Your task to perform on an android device: Set an alarmfor 5pm Image 0: 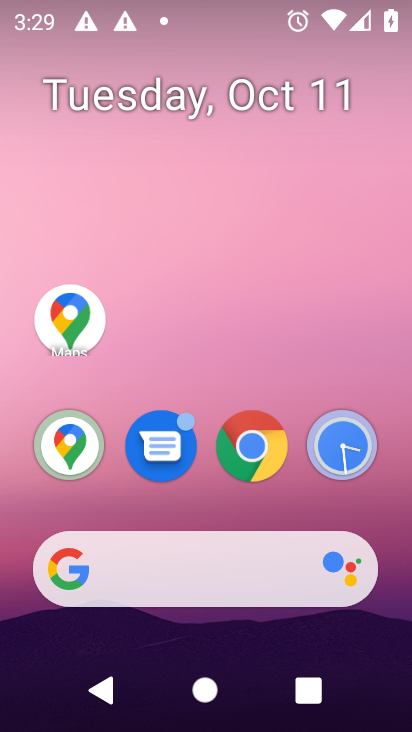
Step 0: click (335, 450)
Your task to perform on an android device: Set an alarmfor 5pm Image 1: 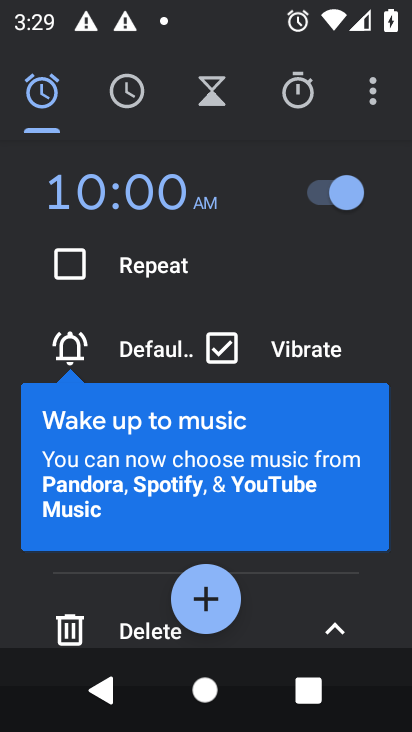
Step 1: click (208, 599)
Your task to perform on an android device: Set an alarmfor 5pm Image 2: 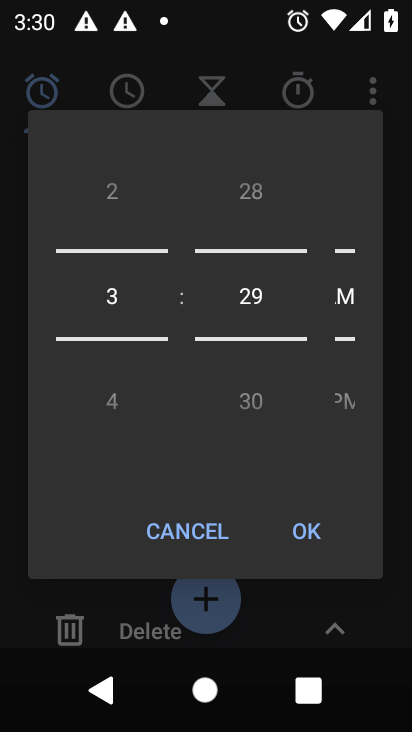
Step 2: drag from (107, 405) to (110, 119)
Your task to perform on an android device: Set an alarmfor 5pm Image 3: 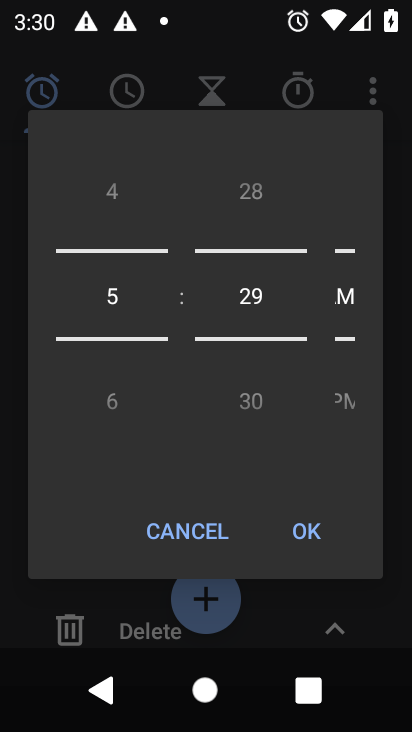
Step 3: drag from (247, 297) to (272, 689)
Your task to perform on an android device: Set an alarmfor 5pm Image 4: 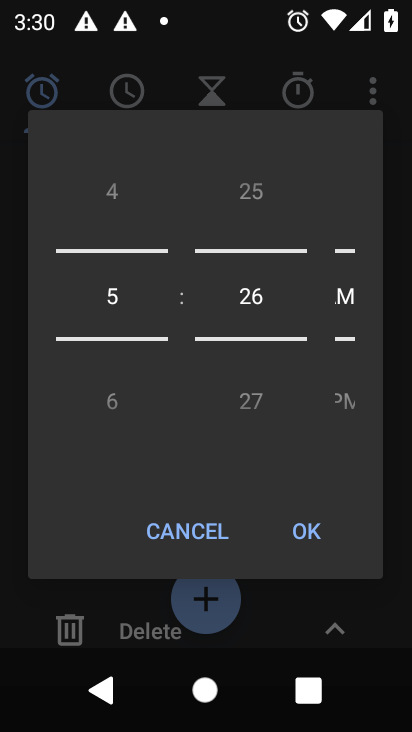
Step 4: drag from (243, 283) to (276, 687)
Your task to perform on an android device: Set an alarmfor 5pm Image 5: 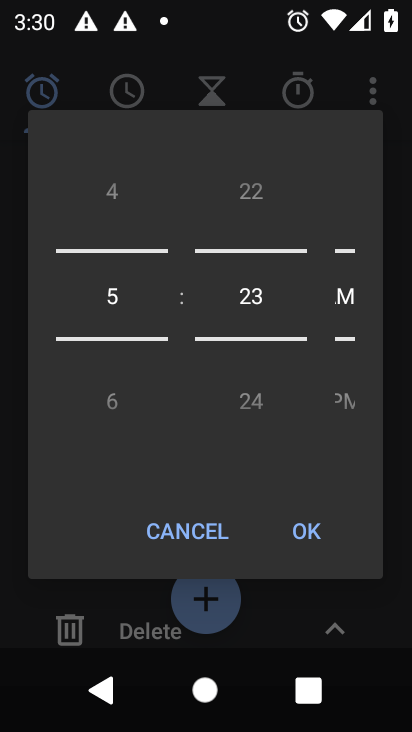
Step 5: drag from (252, 283) to (272, 593)
Your task to perform on an android device: Set an alarmfor 5pm Image 6: 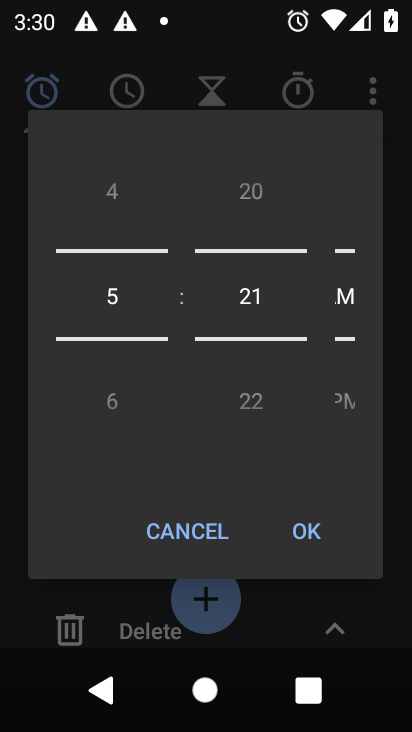
Step 6: drag from (253, 304) to (265, 513)
Your task to perform on an android device: Set an alarmfor 5pm Image 7: 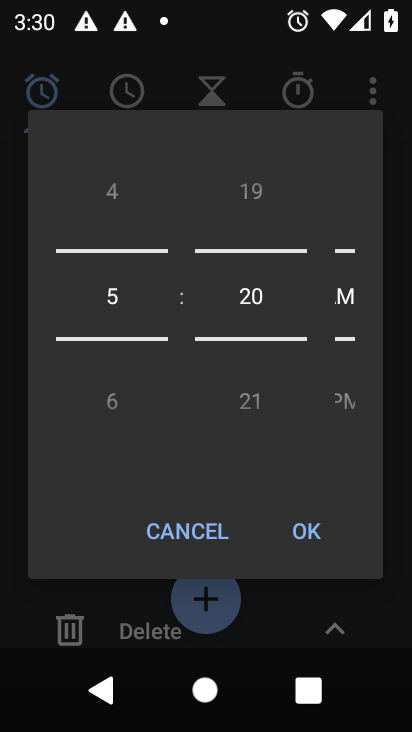
Step 7: drag from (250, 308) to (267, 494)
Your task to perform on an android device: Set an alarmfor 5pm Image 8: 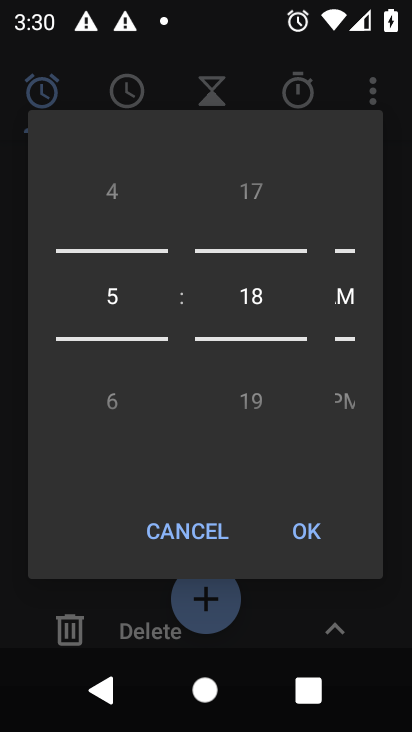
Step 8: drag from (249, 290) to (257, 530)
Your task to perform on an android device: Set an alarmfor 5pm Image 9: 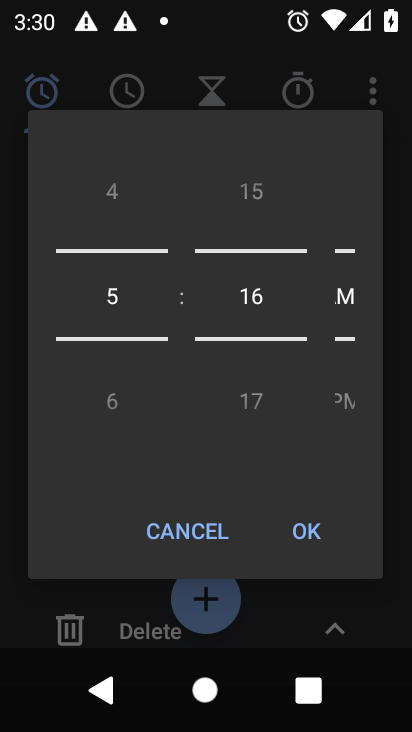
Step 9: drag from (243, 305) to (263, 524)
Your task to perform on an android device: Set an alarmfor 5pm Image 10: 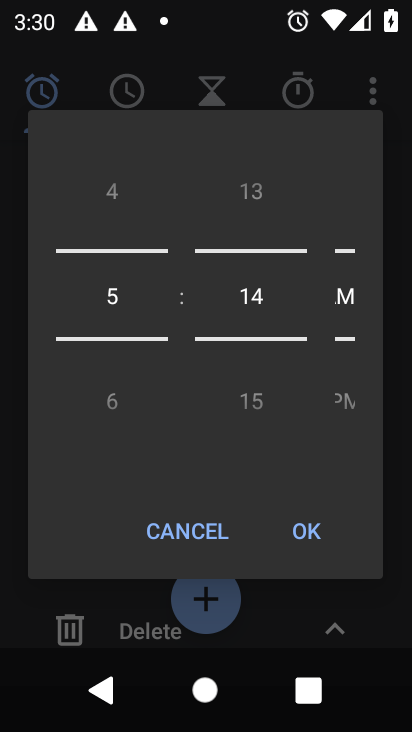
Step 10: drag from (247, 276) to (283, 475)
Your task to perform on an android device: Set an alarmfor 5pm Image 11: 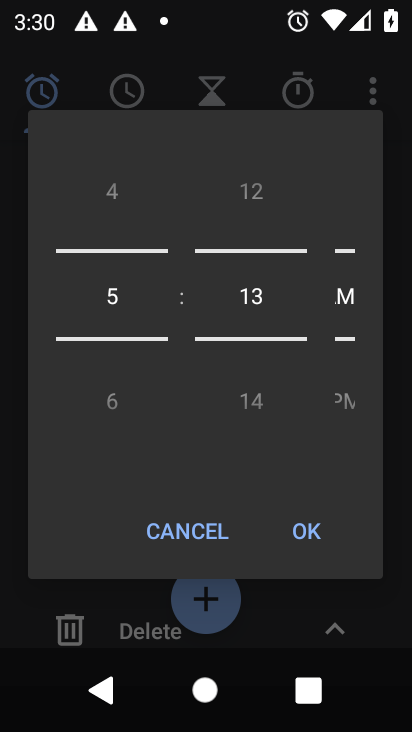
Step 11: drag from (254, 288) to (275, 418)
Your task to perform on an android device: Set an alarmfor 5pm Image 12: 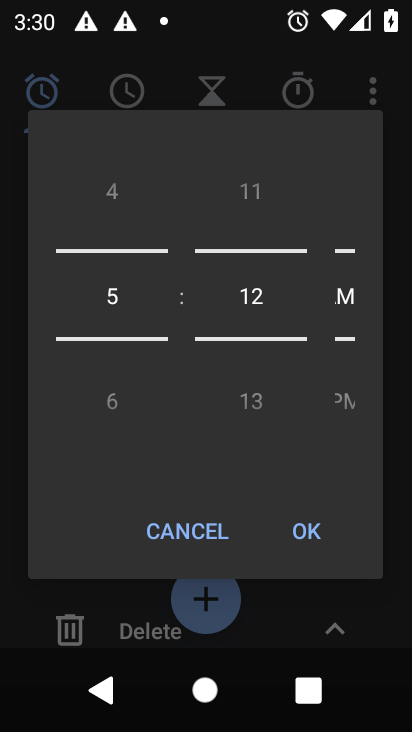
Step 12: drag from (252, 287) to (252, 376)
Your task to perform on an android device: Set an alarmfor 5pm Image 13: 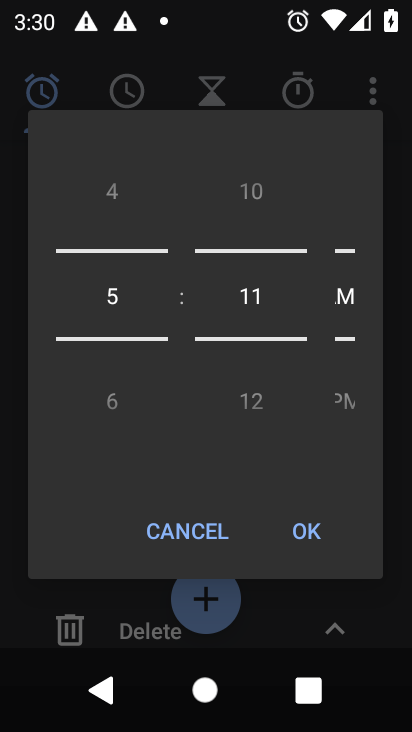
Step 13: drag from (247, 299) to (242, 421)
Your task to perform on an android device: Set an alarmfor 5pm Image 14: 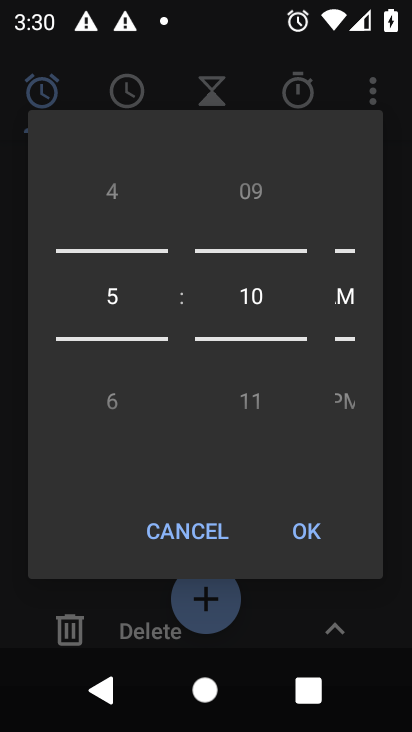
Step 14: drag from (248, 299) to (264, 425)
Your task to perform on an android device: Set an alarmfor 5pm Image 15: 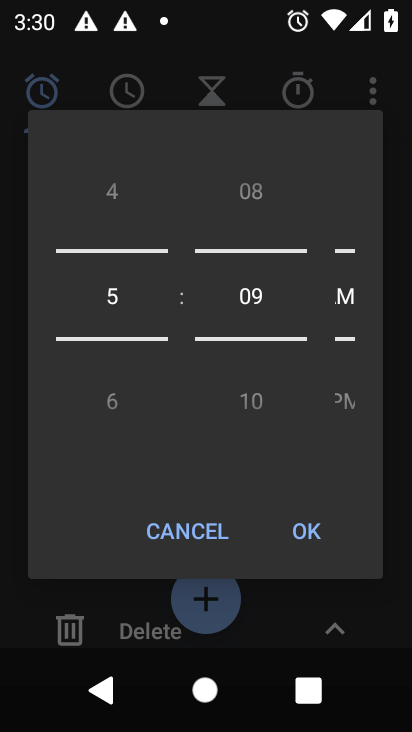
Step 15: drag from (249, 297) to (257, 398)
Your task to perform on an android device: Set an alarmfor 5pm Image 16: 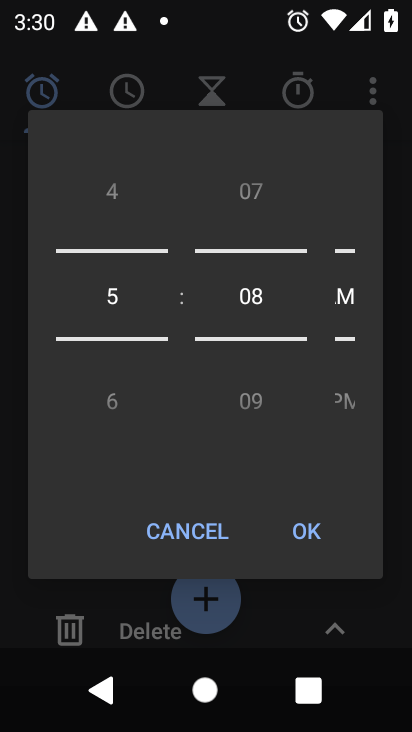
Step 16: drag from (246, 299) to (258, 408)
Your task to perform on an android device: Set an alarmfor 5pm Image 17: 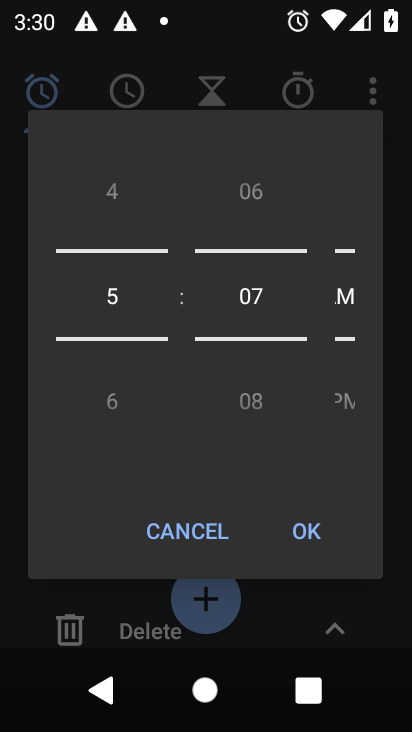
Step 17: drag from (243, 292) to (243, 404)
Your task to perform on an android device: Set an alarmfor 5pm Image 18: 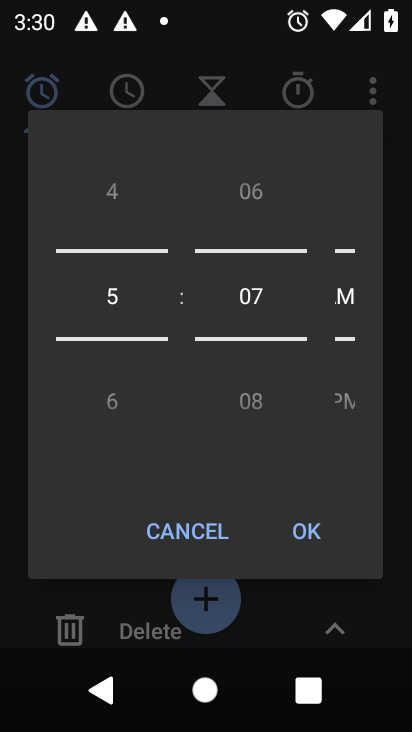
Step 18: drag from (248, 298) to (258, 419)
Your task to perform on an android device: Set an alarmfor 5pm Image 19: 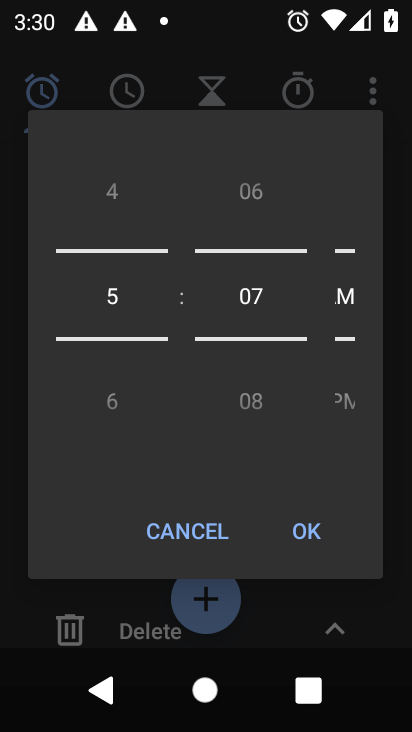
Step 19: drag from (246, 297) to (253, 438)
Your task to perform on an android device: Set an alarmfor 5pm Image 20: 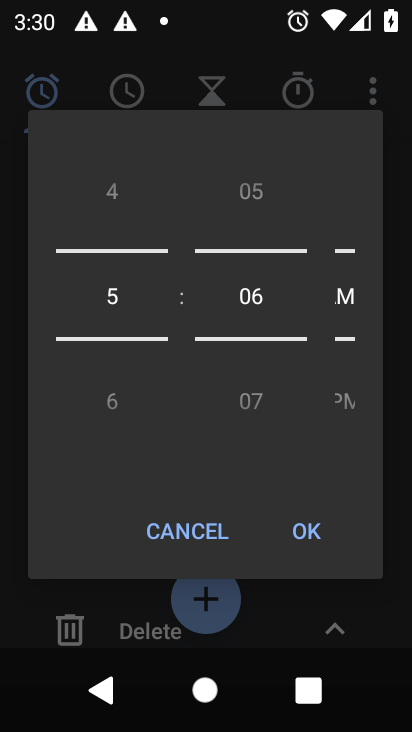
Step 20: drag from (251, 302) to (270, 402)
Your task to perform on an android device: Set an alarmfor 5pm Image 21: 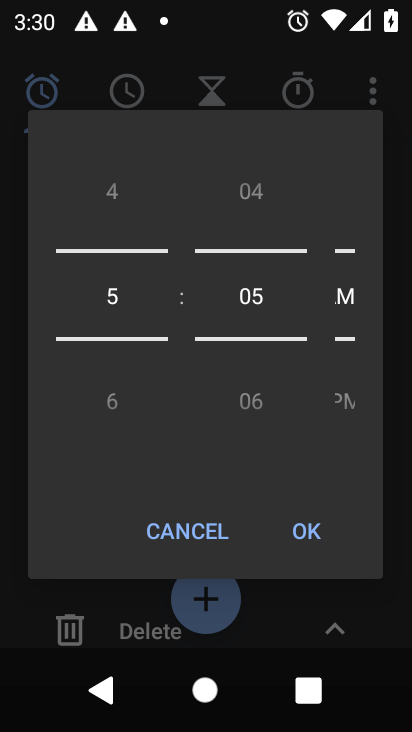
Step 21: drag from (244, 292) to (249, 393)
Your task to perform on an android device: Set an alarmfor 5pm Image 22: 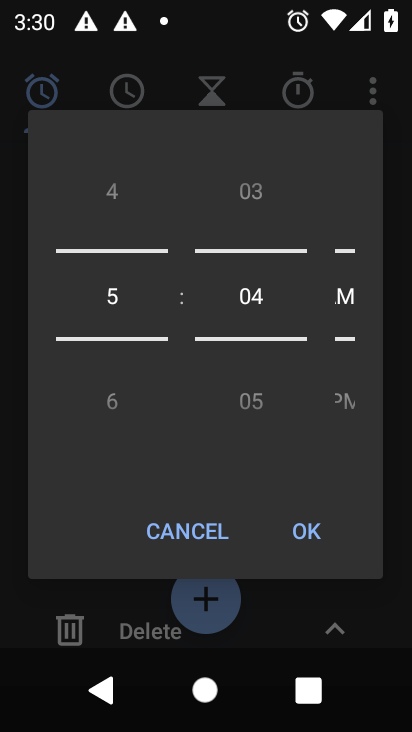
Step 22: drag from (253, 287) to (265, 392)
Your task to perform on an android device: Set an alarmfor 5pm Image 23: 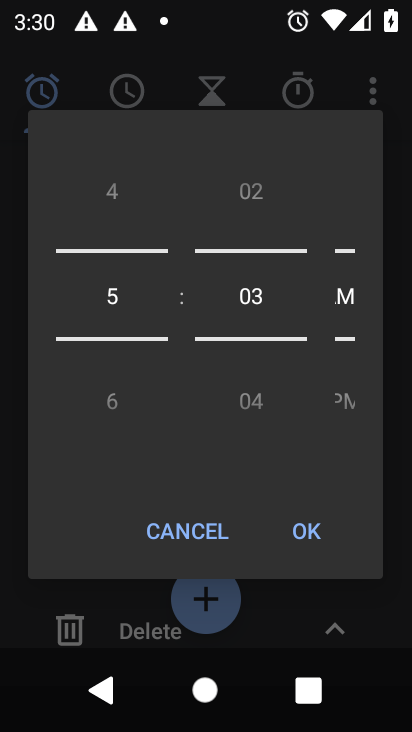
Step 23: drag from (251, 278) to (268, 403)
Your task to perform on an android device: Set an alarmfor 5pm Image 24: 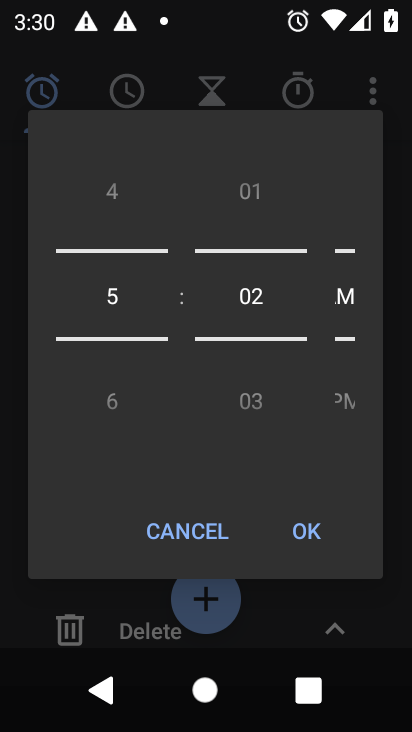
Step 24: drag from (250, 299) to (255, 409)
Your task to perform on an android device: Set an alarmfor 5pm Image 25: 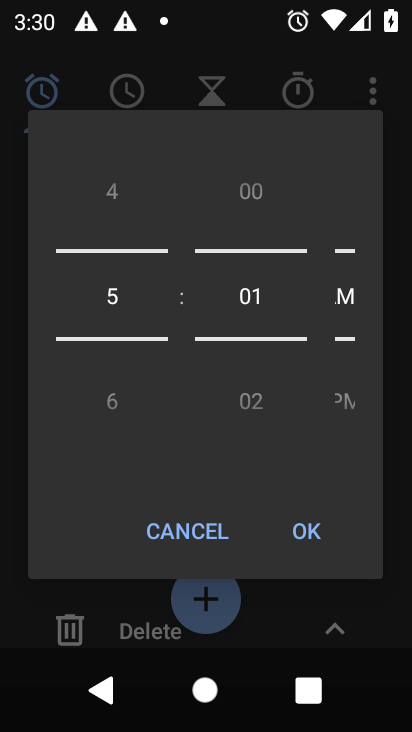
Step 25: drag from (247, 305) to (245, 416)
Your task to perform on an android device: Set an alarmfor 5pm Image 26: 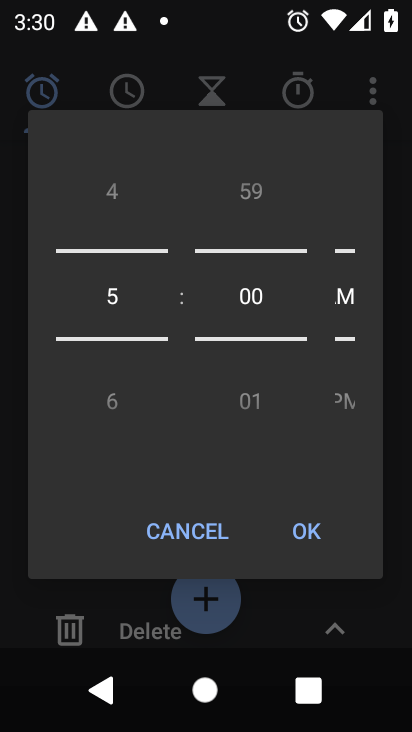
Step 26: drag from (345, 401) to (335, 304)
Your task to perform on an android device: Set an alarmfor 5pm Image 27: 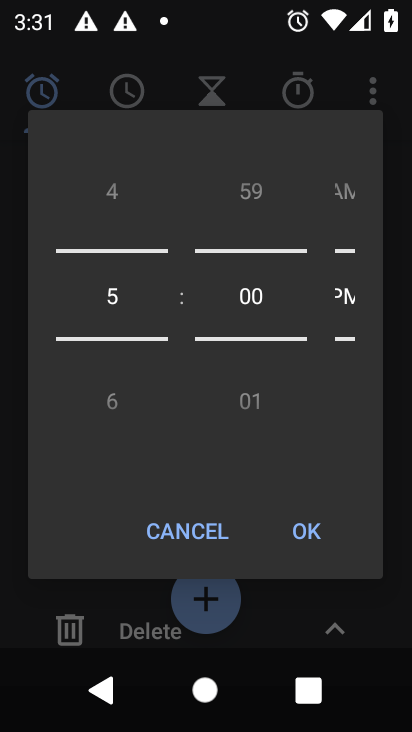
Step 27: click (299, 531)
Your task to perform on an android device: Set an alarmfor 5pm Image 28: 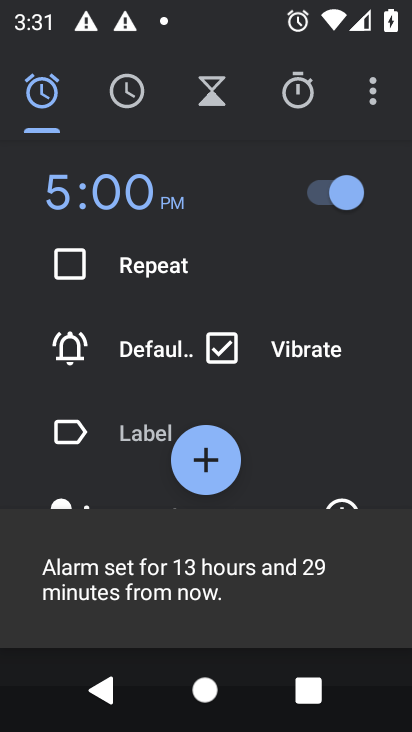
Step 28: task complete